Your task to perform on an android device: Search for dell alienware on bestbuy, select the first entry, and add it to the cart. Image 0: 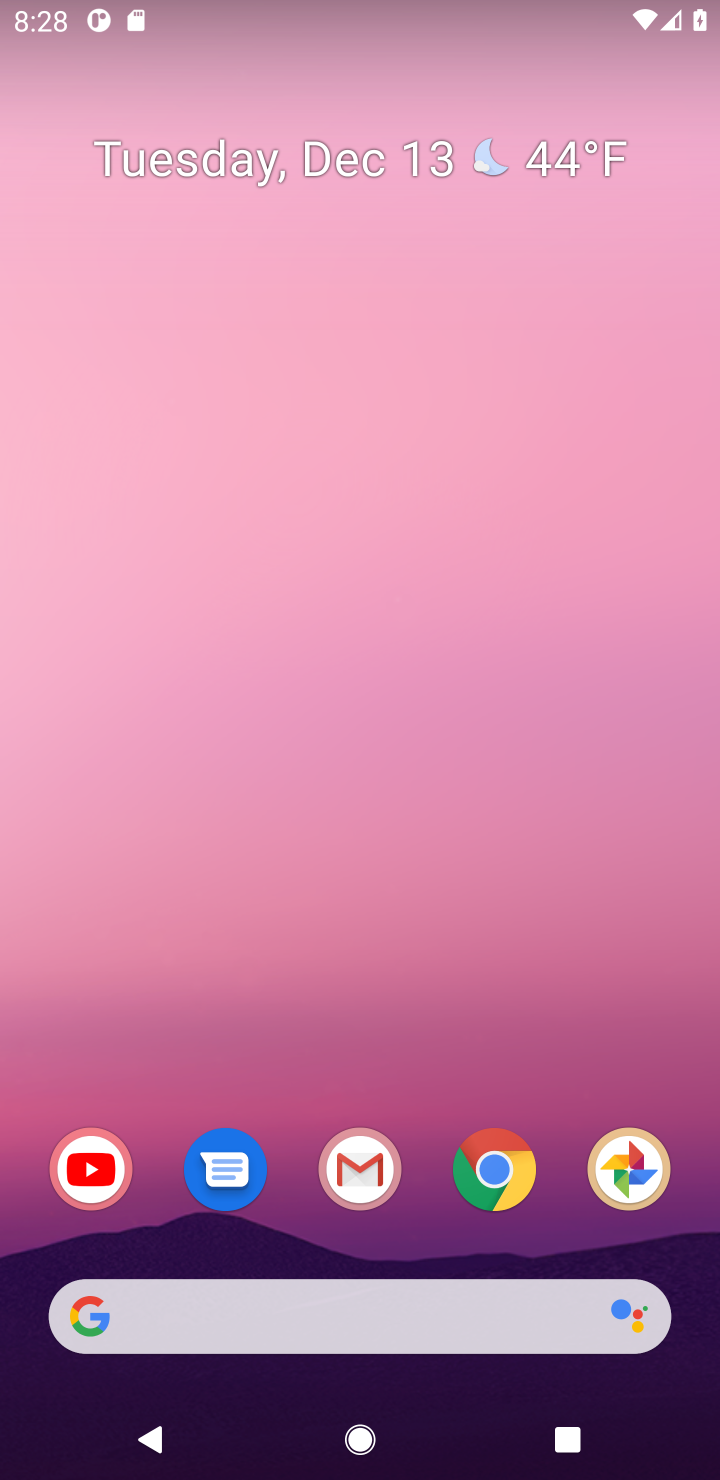
Step 0: click (442, 1303)
Your task to perform on an android device: Search for dell alienware on bestbuy, select the first entry, and add it to the cart. Image 1: 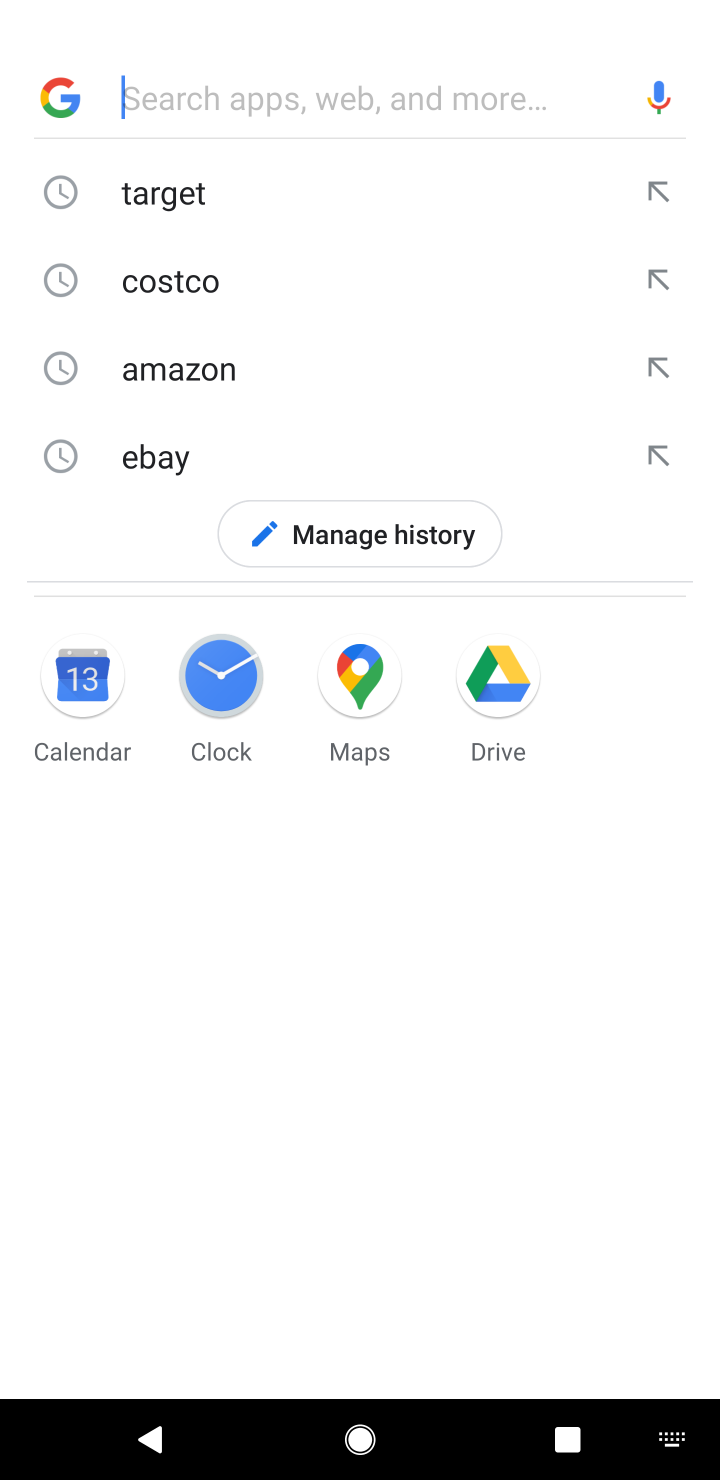
Step 1: type "bestbuy"
Your task to perform on an android device: Search for dell alienware on bestbuy, select the first entry, and add it to the cart. Image 2: 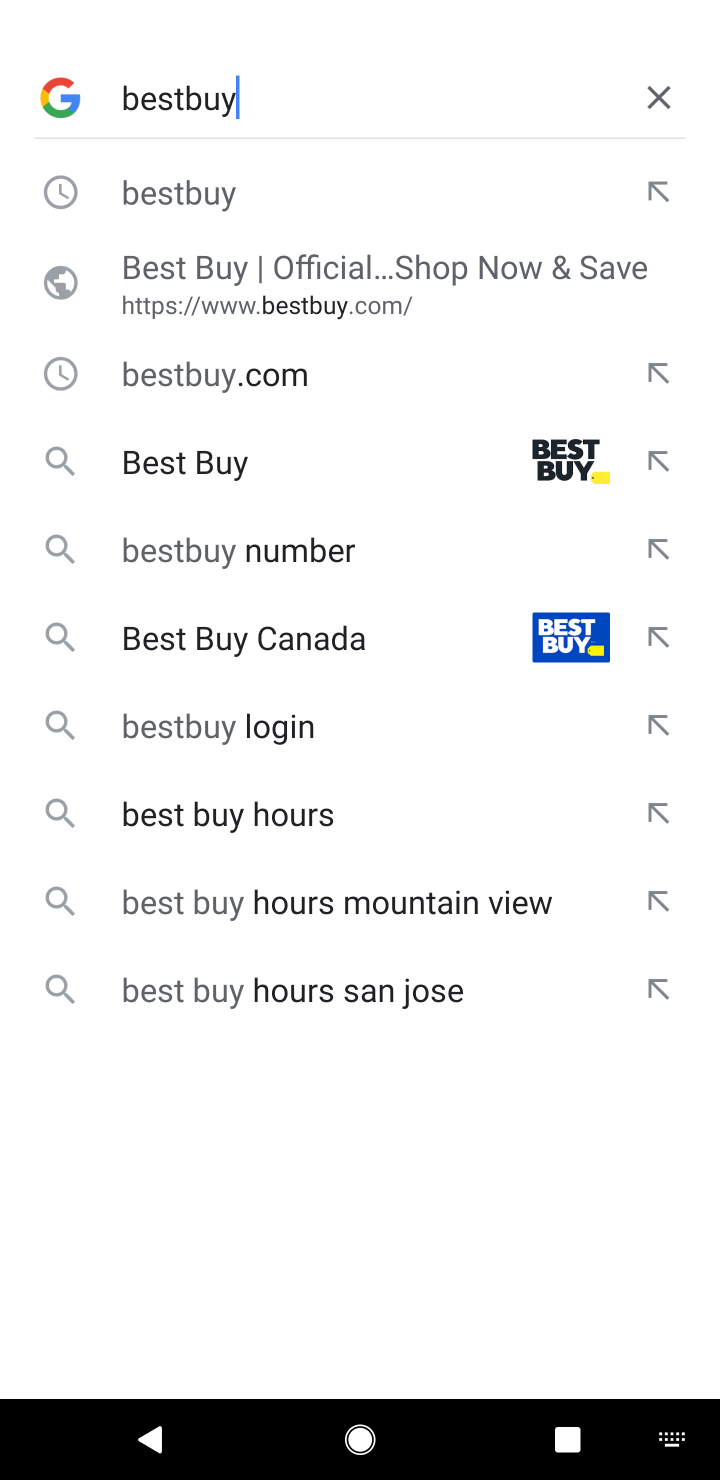
Step 2: click (178, 205)
Your task to perform on an android device: Search for dell alienware on bestbuy, select the first entry, and add it to the cart. Image 3: 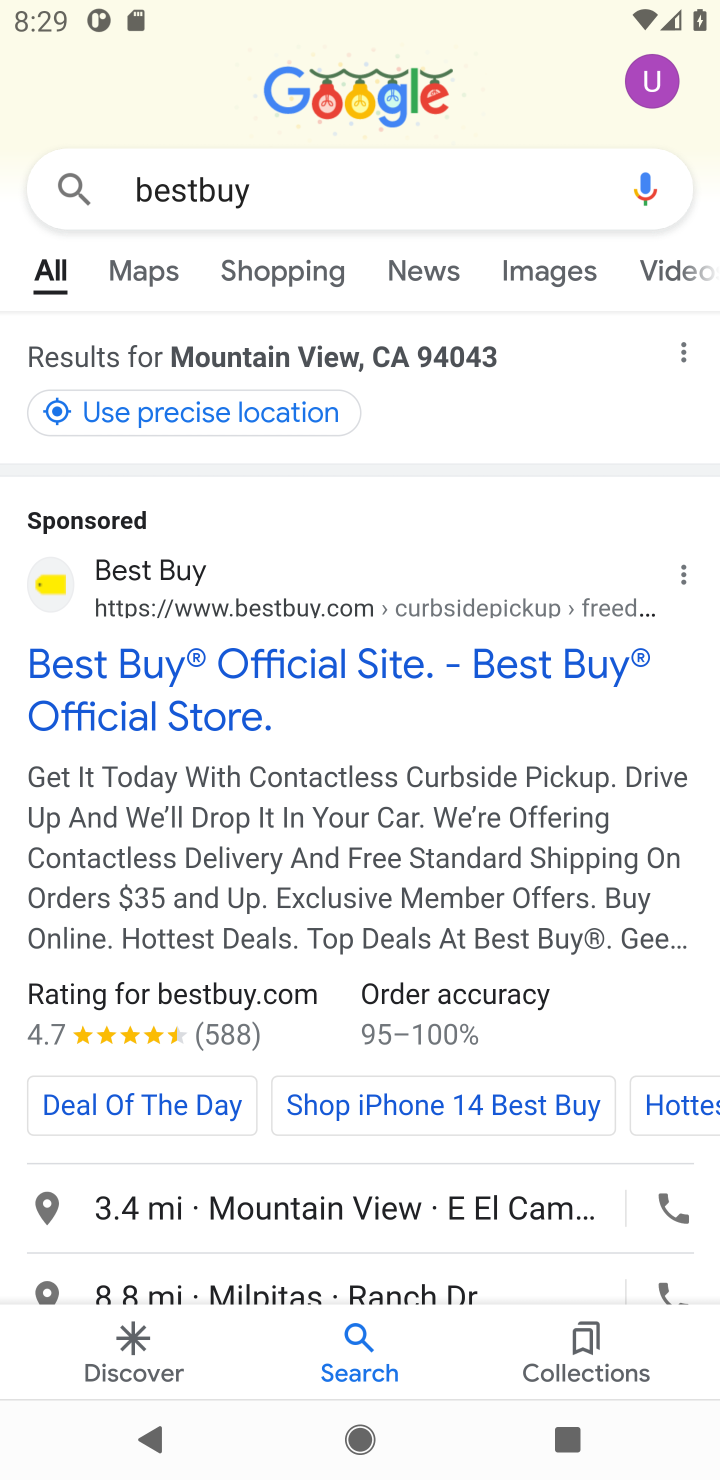
Step 3: click (97, 711)
Your task to perform on an android device: Search for dell alienware on bestbuy, select the first entry, and add it to the cart. Image 4: 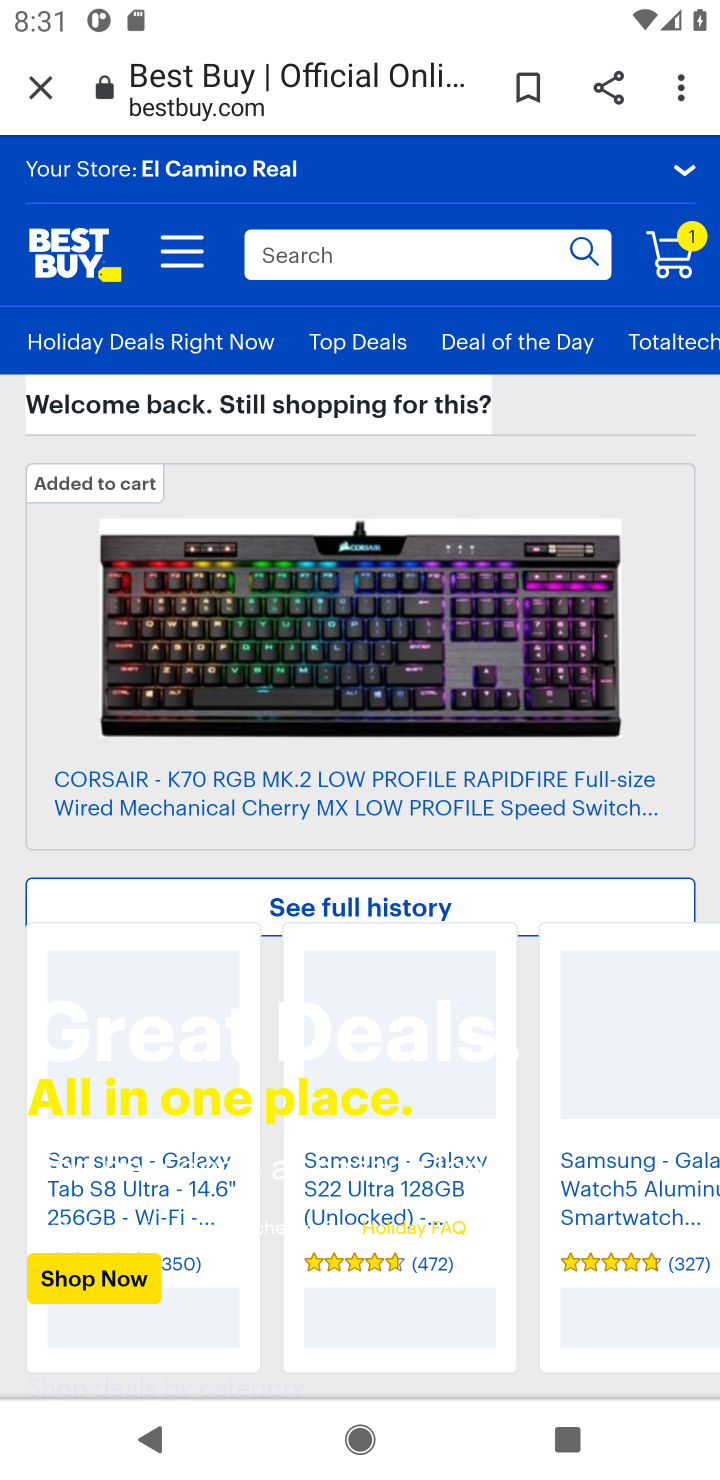
Step 4: click (357, 271)
Your task to perform on an android device: Search for dell alienware on bestbuy, select the first entry, and add it to the cart. Image 5: 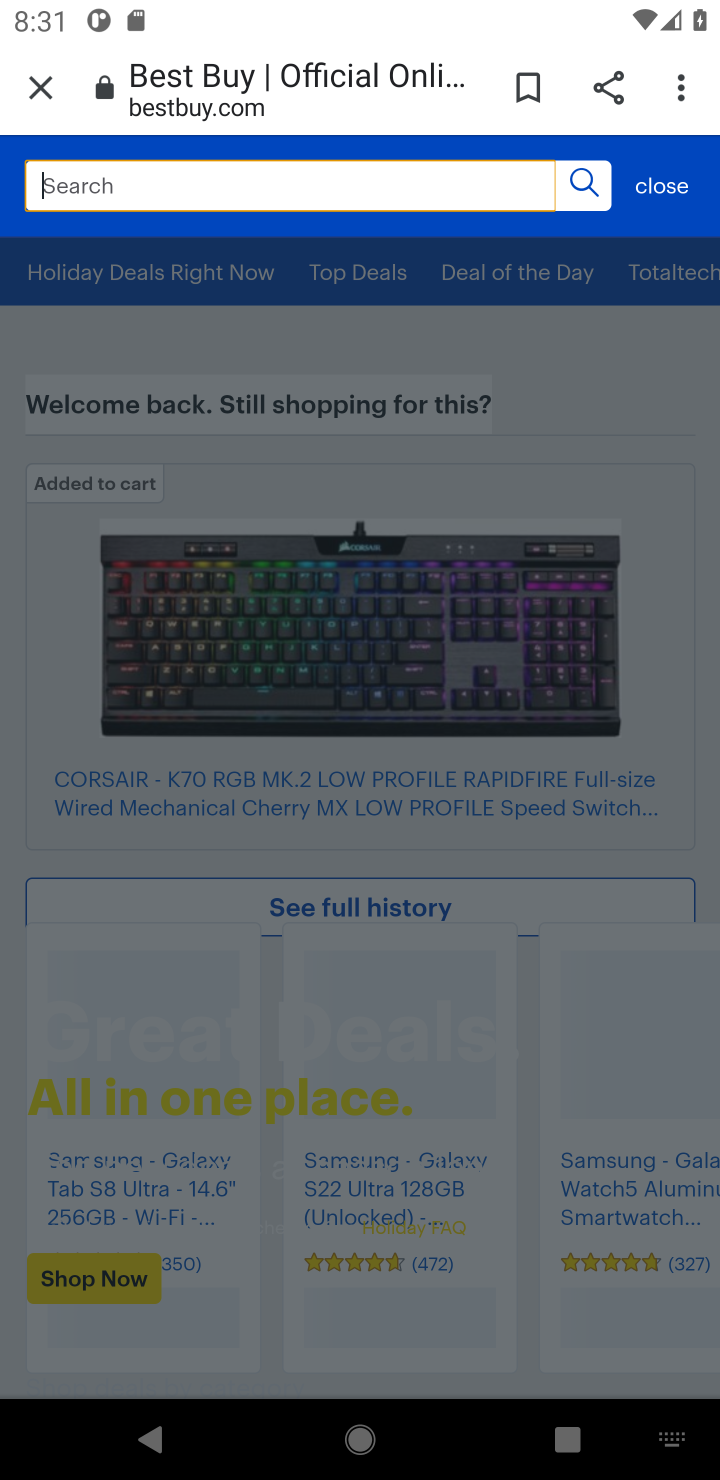
Step 5: type "dell alienware"
Your task to perform on an android device: Search for dell alienware on bestbuy, select the first entry, and add it to the cart. Image 6: 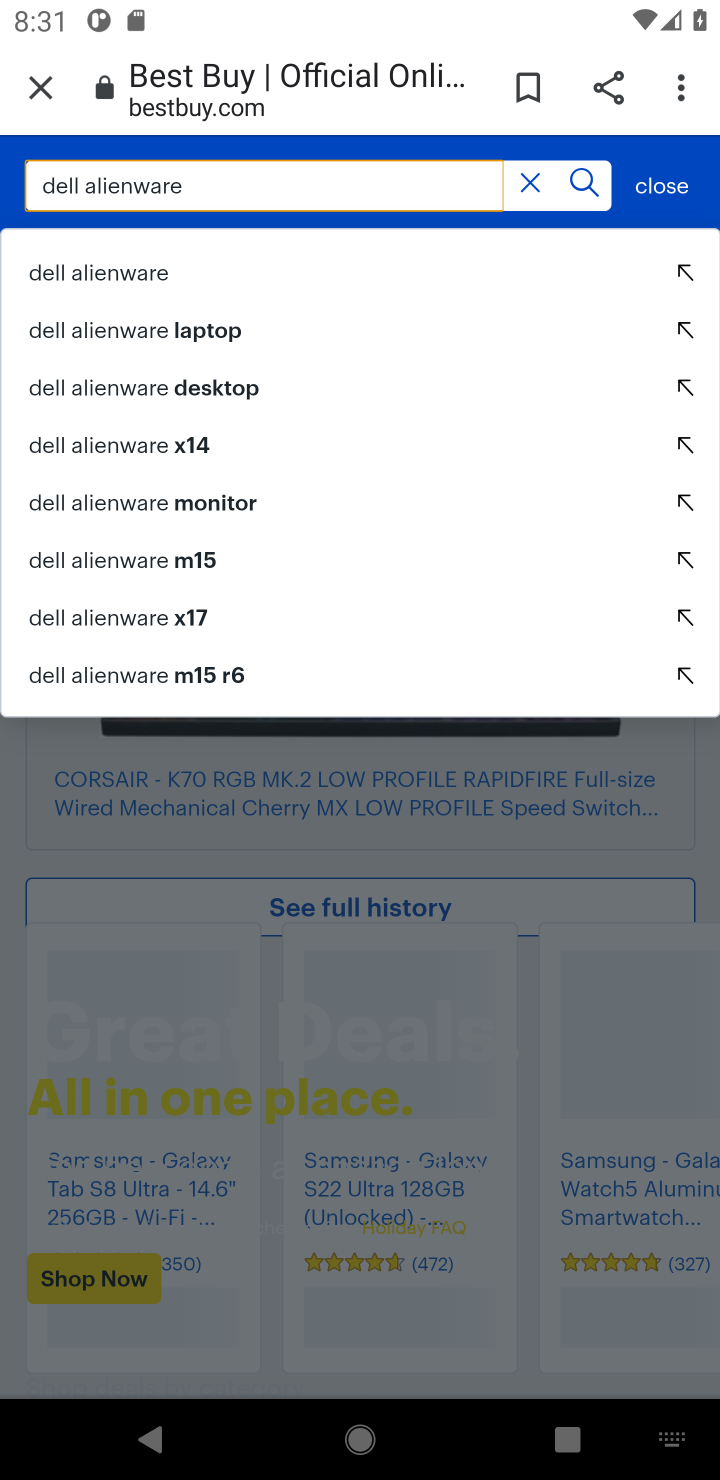
Step 6: task complete